Your task to perform on an android device: Open Maps and search for coffee Image 0: 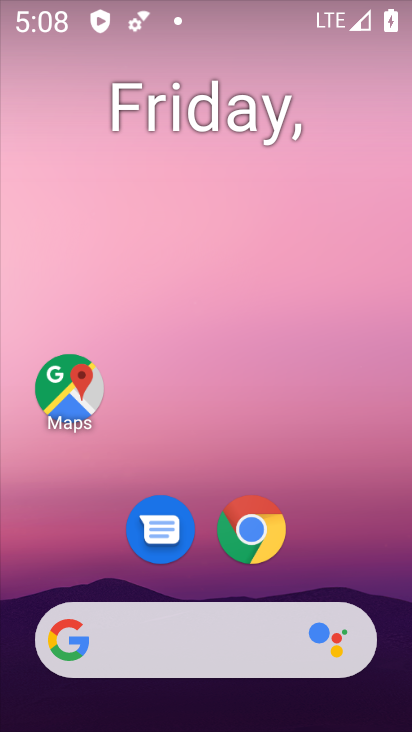
Step 0: click (61, 393)
Your task to perform on an android device: Open Maps and search for coffee Image 1: 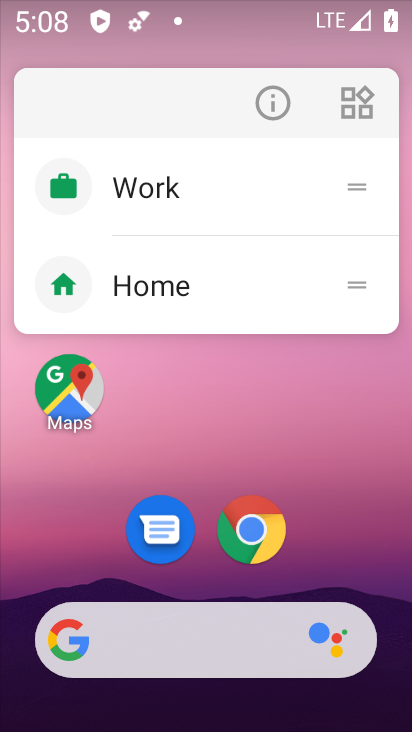
Step 1: click (85, 398)
Your task to perform on an android device: Open Maps and search for coffee Image 2: 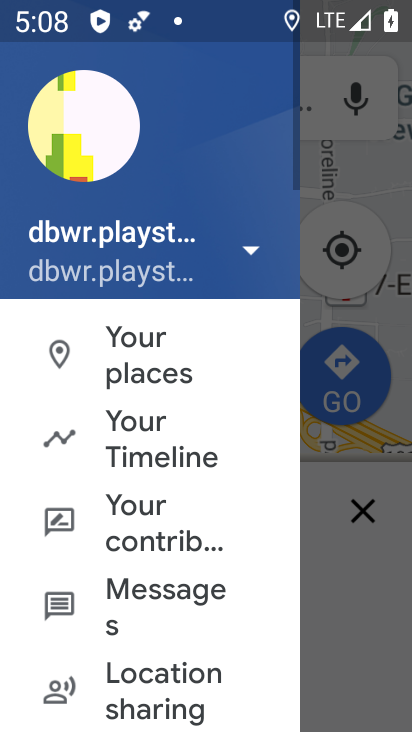
Step 2: click (318, 587)
Your task to perform on an android device: Open Maps and search for coffee Image 3: 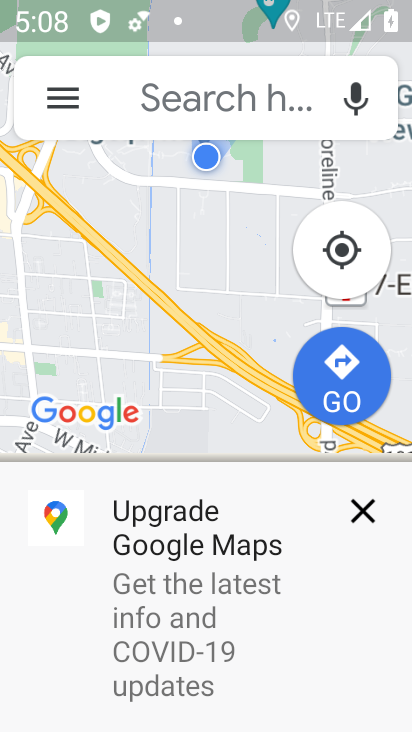
Step 3: click (181, 105)
Your task to perform on an android device: Open Maps and search for coffee Image 4: 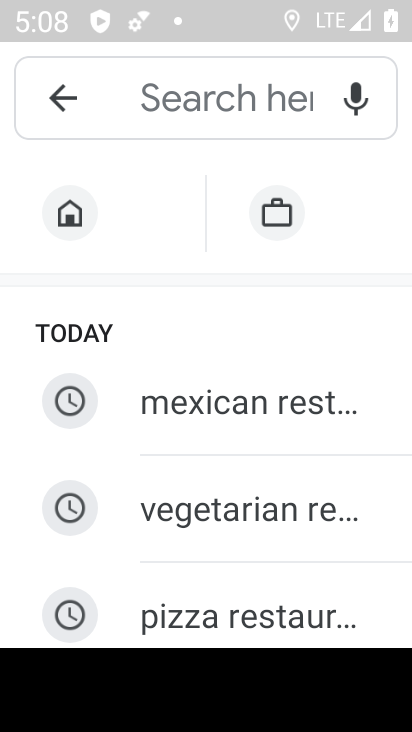
Step 4: type "coffee"
Your task to perform on an android device: Open Maps and search for coffee Image 5: 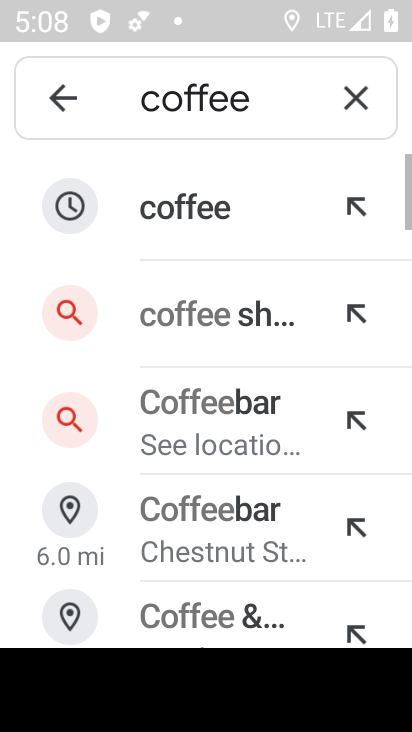
Step 5: click (268, 209)
Your task to perform on an android device: Open Maps and search for coffee Image 6: 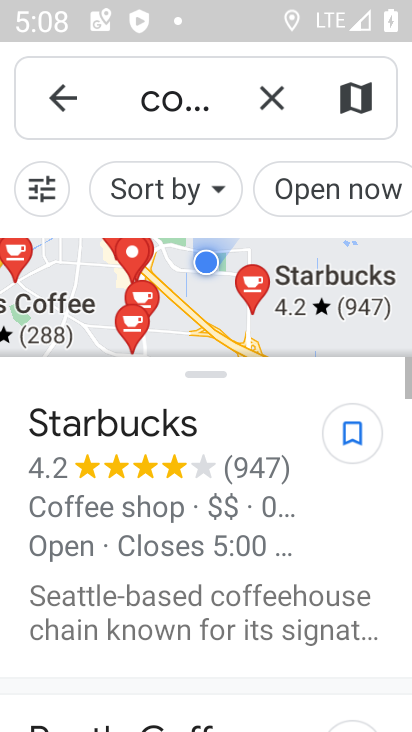
Step 6: task complete